Your task to perform on an android device: clear all cookies in the chrome app Image 0: 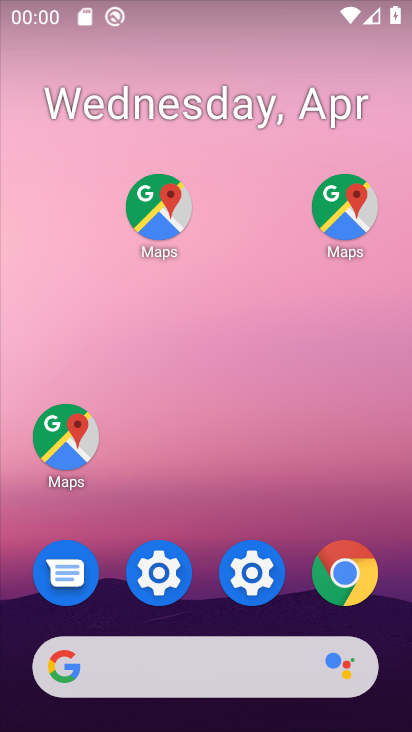
Step 0: drag from (215, 619) to (174, 240)
Your task to perform on an android device: clear all cookies in the chrome app Image 1: 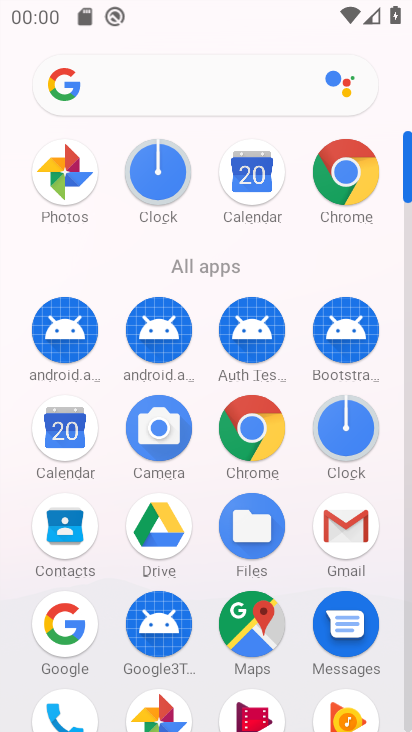
Step 1: click (340, 158)
Your task to perform on an android device: clear all cookies in the chrome app Image 2: 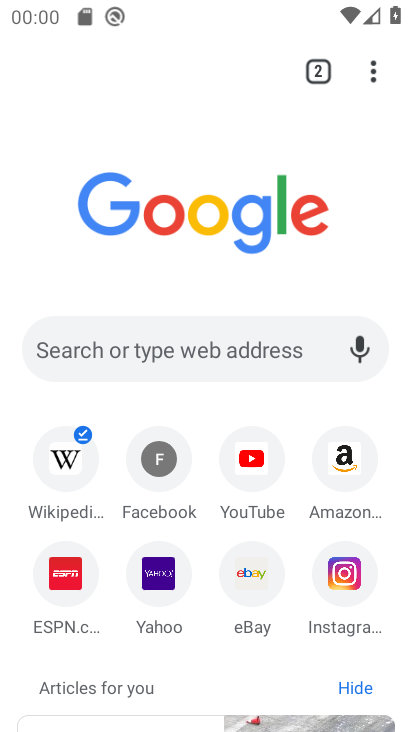
Step 2: drag from (370, 73) to (103, 601)
Your task to perform on an android device: clear all cookies in the chrome app Image 3: 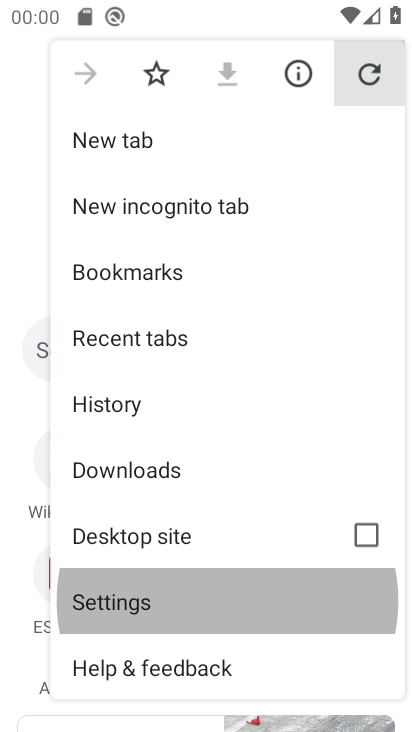
Step 3: drag from (368, 87) to (103, 601)
Your task to perform on an android device: clear all cookies in the chrome app Image 4: 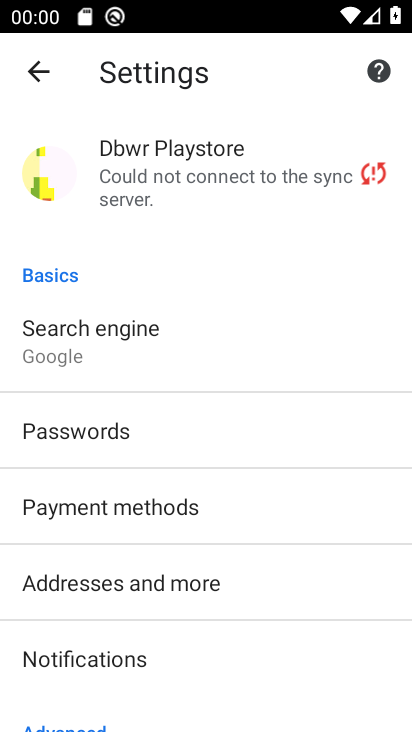
Step 4: drag from (107, 655) to (115, 346)
Your task to perform on an android device: clear all cookies in the chrome app Image 5: 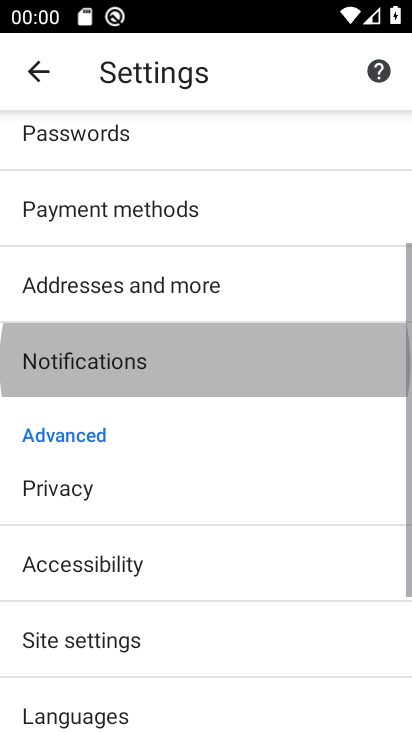
Step 5: drag from (143, 569) to (80, 287)
Your task to perform on an android device: clear all cookies in the chrome app Image 6: 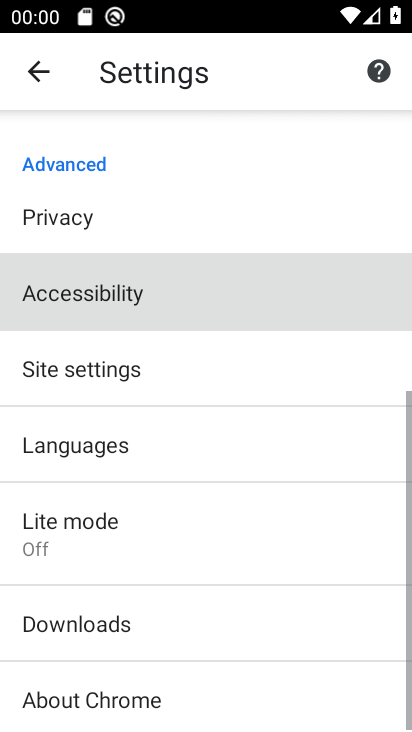
Step 6: drag from (137, 505) to (145, 276)
Your task to perform on an android device: clear all cookies in the chrome app Image 7: 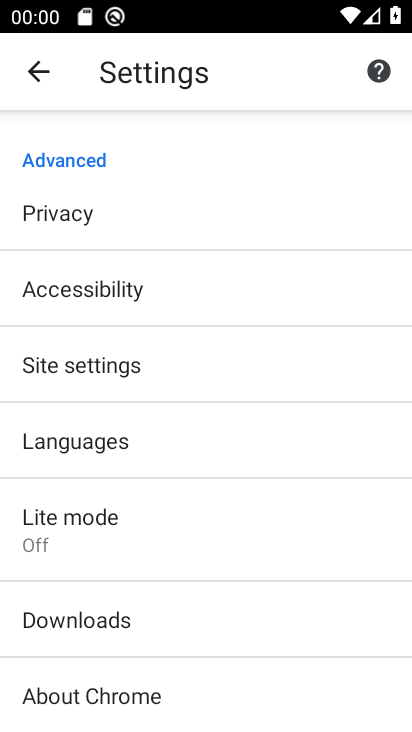
Step 7: click (73, 368)
Your task to perform on an android device: clear all cookies in the chrome app Image 8: 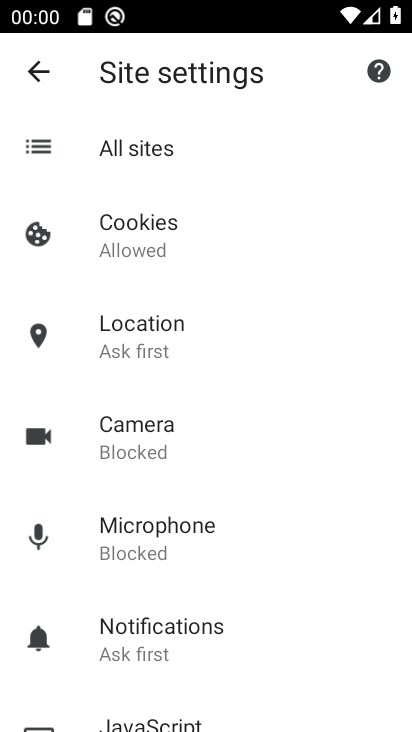
Step 8: click (140, 229)
Your task to perform on an android device: clear all cookies in the chrome app Image 9: 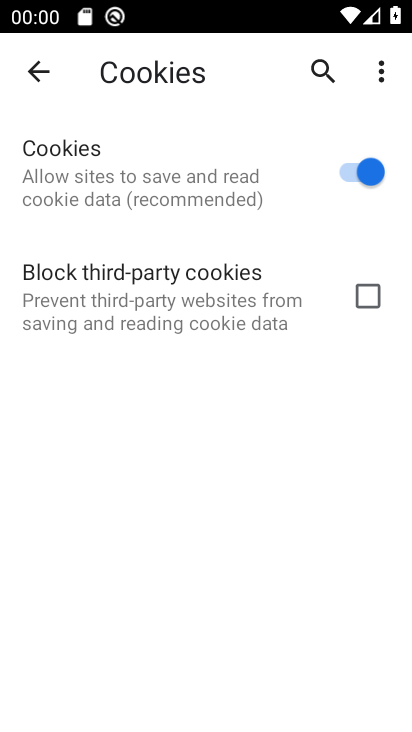
Step 9: task complete